Your task to perform on an android device: Open battery settings Image 0: 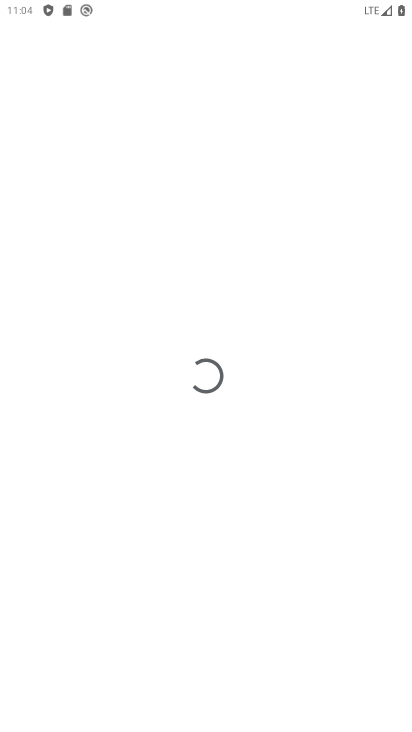
Step 0: drag from (192, 202) to (110, 63)
Your task to perform on an android device: Open battery settings Image 1: 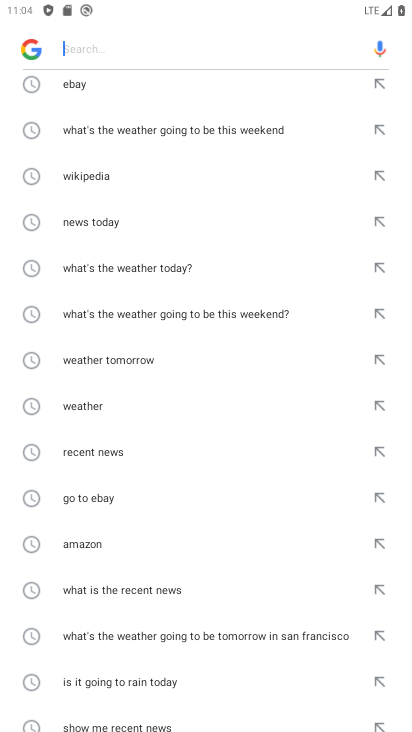
Step 1: press home button
Your task to perform on an android device: Open battery settings Image 2: 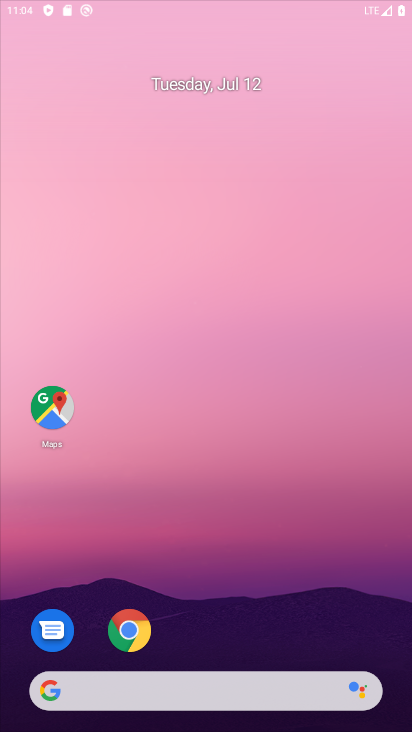
Step 2: drag from (384, 673) to (114, 69)
Your task to perform on an android device: Open battery settings Image 3: 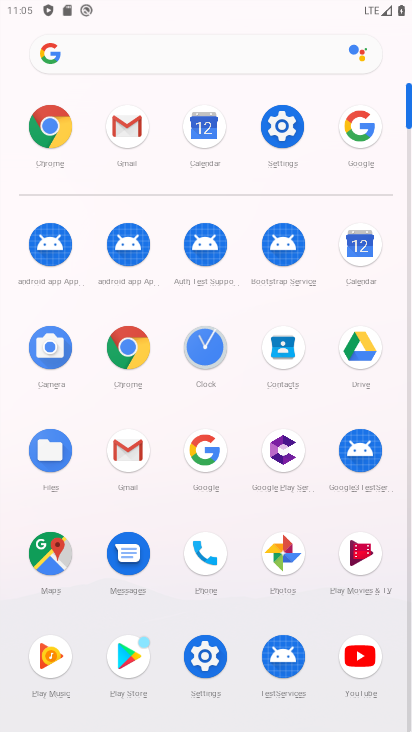
Step 3: click (193, 672)
Your task to perform on an android device: Open battery settings Image 4: 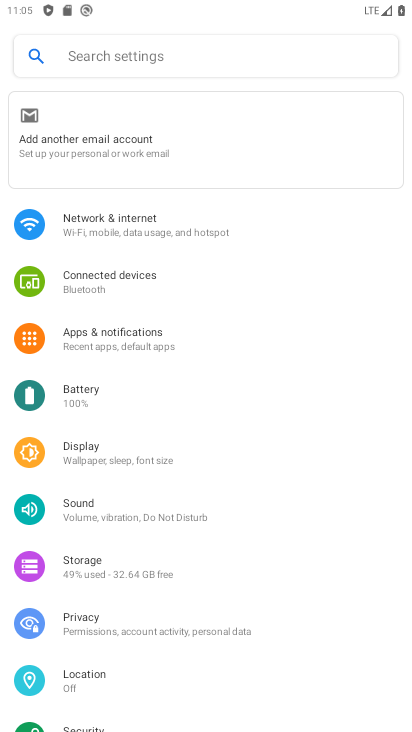
Step 4: click (109, 390)
Your task to perform on an android device: Open battery settings Image 5: 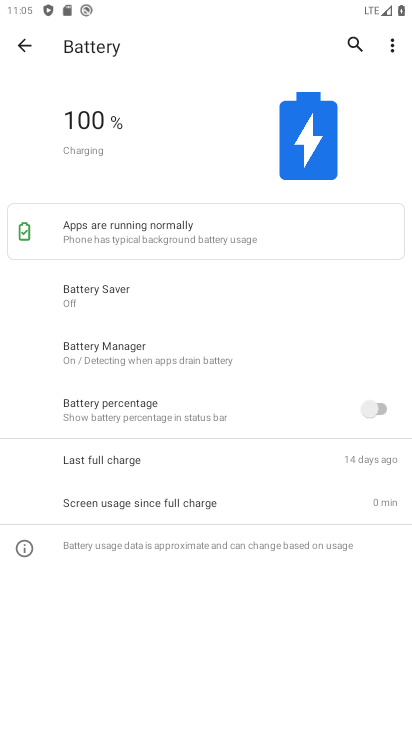
Step 5: task complete